Your task to perform on an android device: Go to Wikipedia Image 0: 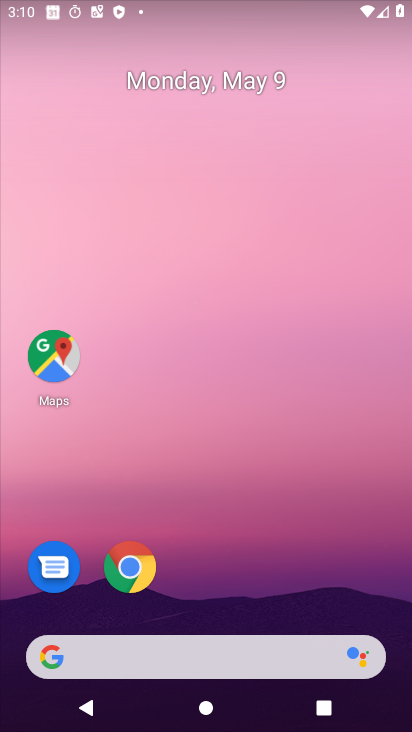
Step 0: drag from (227, 508) to (270, 22)
Your task to perform on an android device: Go to Wikipedia Image 1: 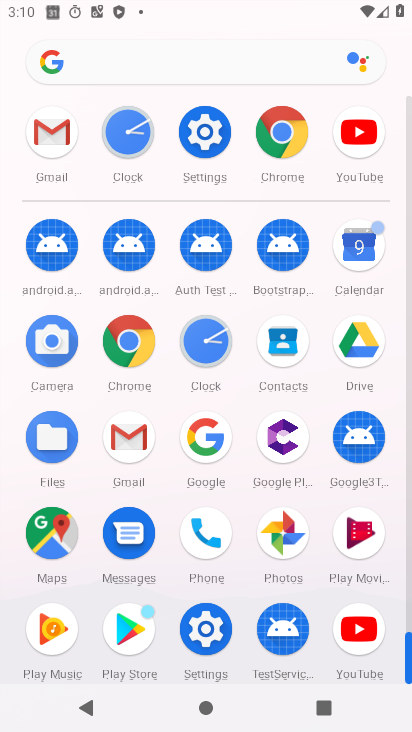
Step 1: click (287, 136)
Your task to perform on an android device: Go to Wikipedia Image 2: 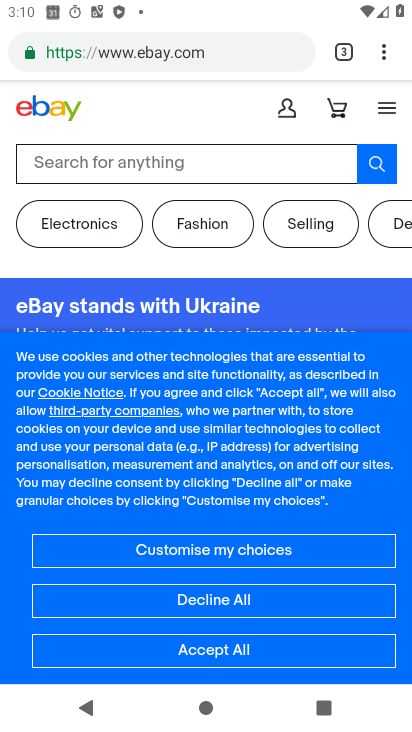
Step 2: click (343, 51)
Your task to perform on an android device: Go to Wikipedia Image 3: 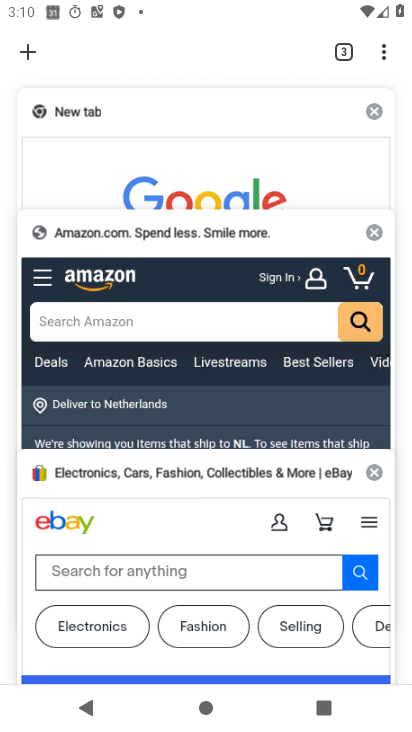
Step 3: click (48, 129)
Your task to perform on an android device: Go to Wikipedia Image 4: 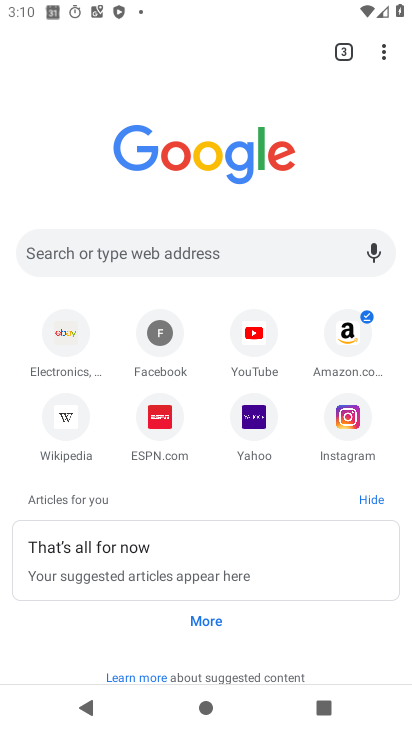
Step 4: click (67, 415)
Your task to perform on an android device: Go to Wikipedia Image 5: 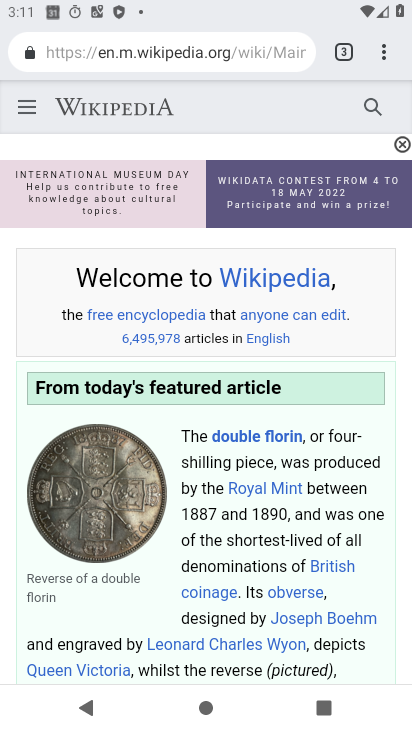
Step 5: task complete